Your task to perform on an android device: move an email to a new category in the gmail app Image 0: 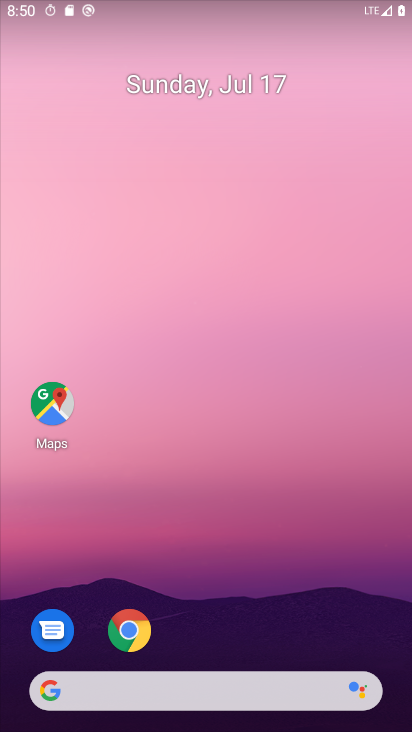
Step 0: drag from (226, 657) to (310, 531)
Your task to perform on an android device: move an email to a new category in the gmail app Image 1: 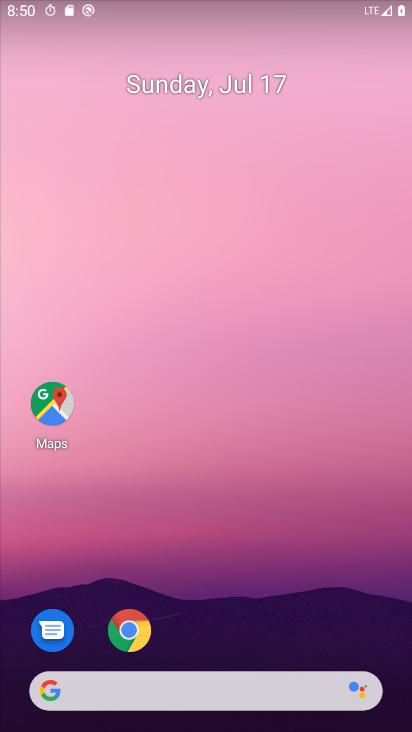
Step 1: drag from (194, 655) to (169, 1)
Your task to perform on an android device: move an email to a new category in the gmail app Image 2: 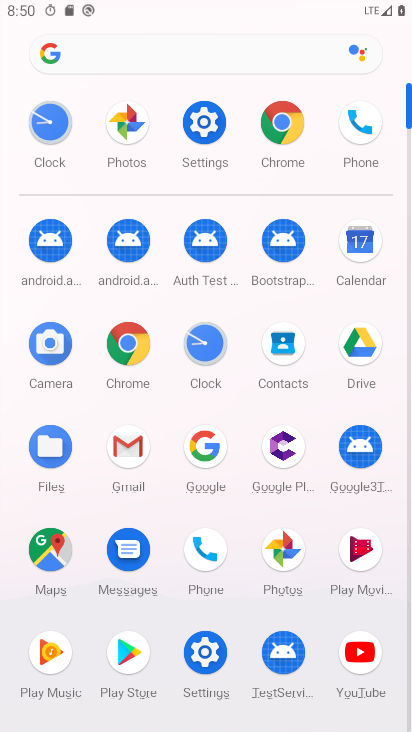
Step 2: click (126, 447)
Your task to perform on an android device: move an email to a new category in the gmail app Image 3: 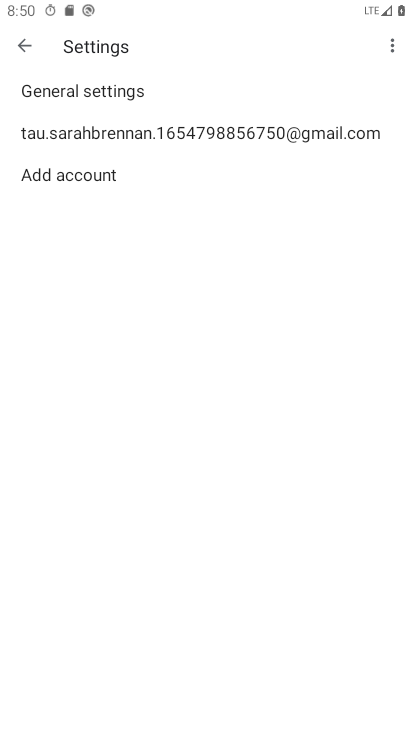
Step 3: click (29, 40)
Your task to perform on an android device: move an email to a new category in the gmail app Image 4: 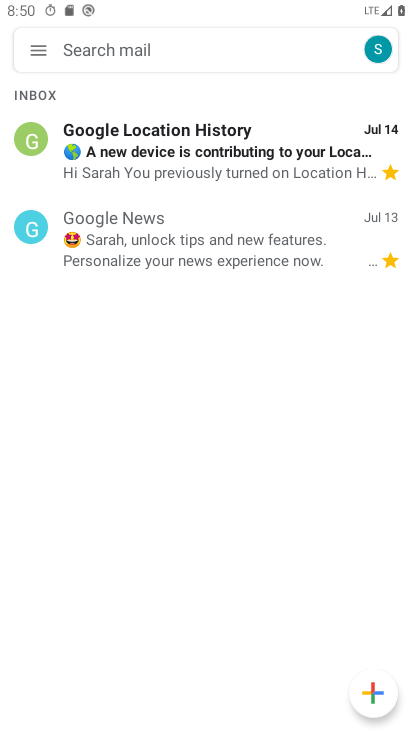
Step 4: click (26, 131)
Your task to perform on an android device: move an email to a new category in the gmail app Image 5: 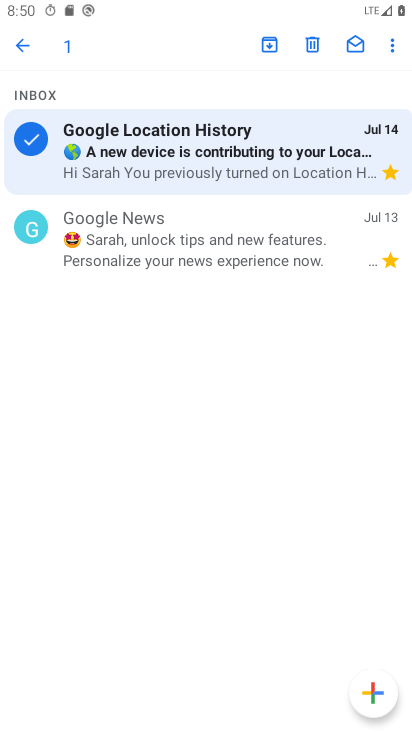
Step 5: click (385, 48)
Your task to perform on an android device: move an email to a new category in the gmail app Image 6: 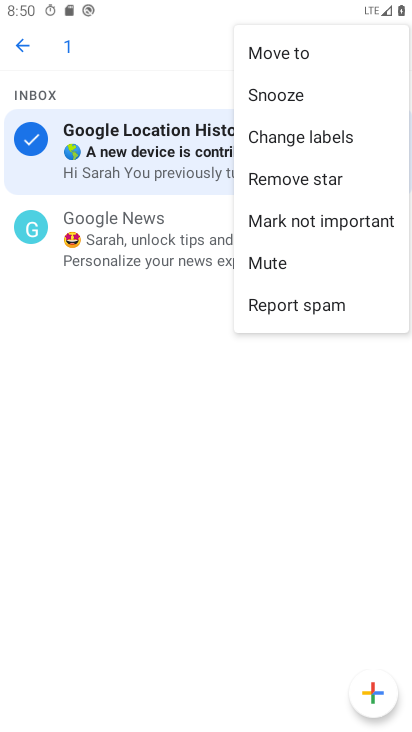
Step 6: click (292, 49)
Your task to perform on an android device: move an email to a new category in the gmail app Image 7: 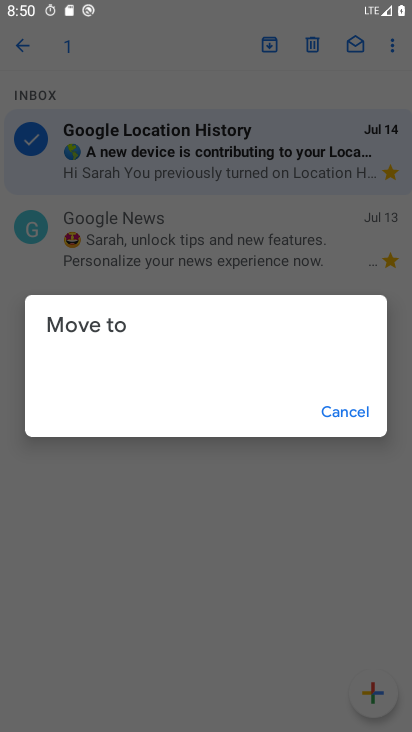
Step 7: click (333, 412)
Your task to perform on an android device: move an email to a new category in the gmail app Image 8: 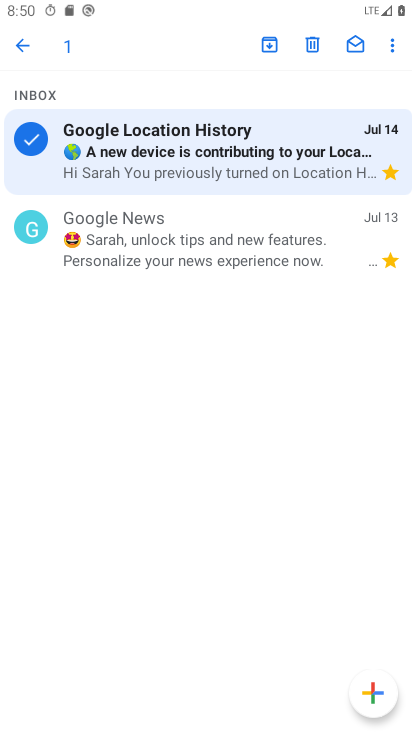
Step 8: click (390, 51)
Your task to perform on an android device: move an email to a new category in the gmail app Image 9: 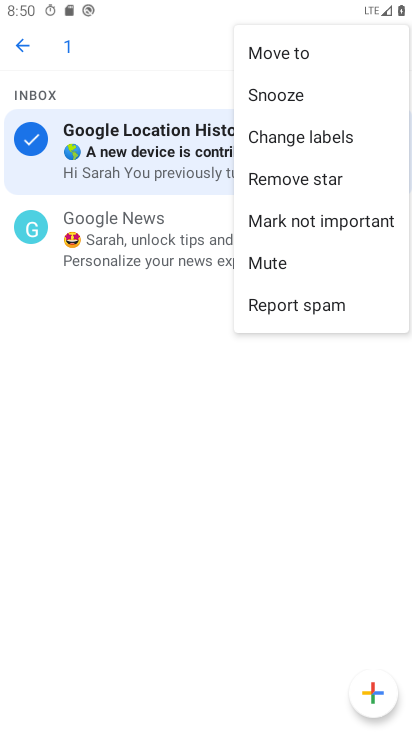
Step 9: click (308, 144)
Your task to perform on an android device: move an email to a new category in the gmail app Image 10: 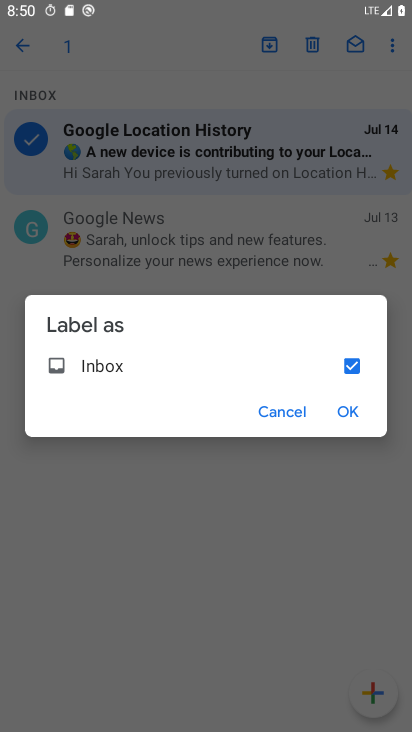
Step 10: click (351, 368)
Your task to perform on an android device: move an email to a new category in the gmail app Image 11: 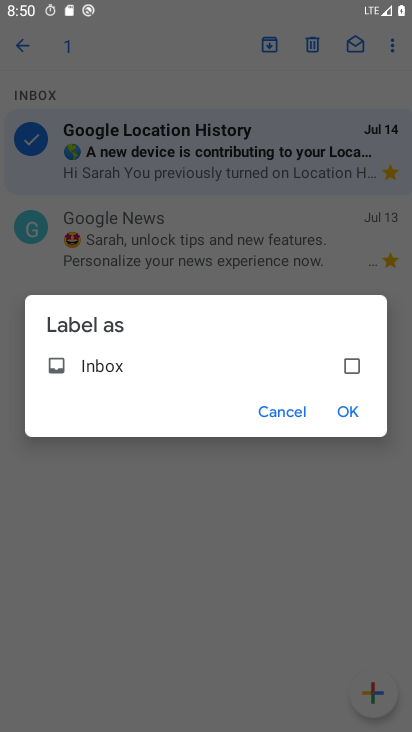
Step 11: click (352, 409)
Your task to perform on an android device: move an email to a new category in the gmail app Image 12: 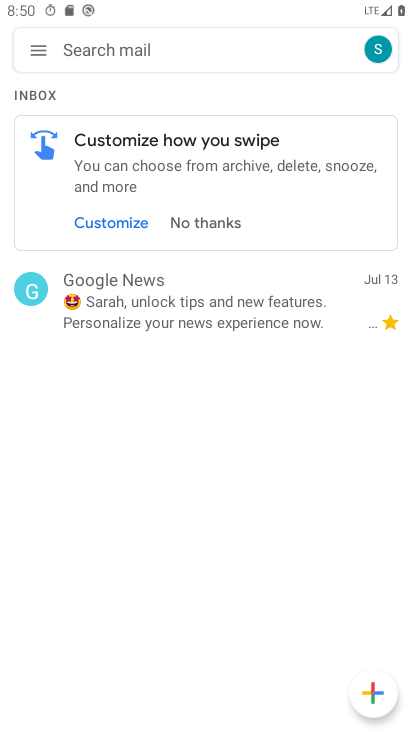
Step 12: task complete